Your task to perform on an android device: Show me productivity apps on the Play Store Image 0: 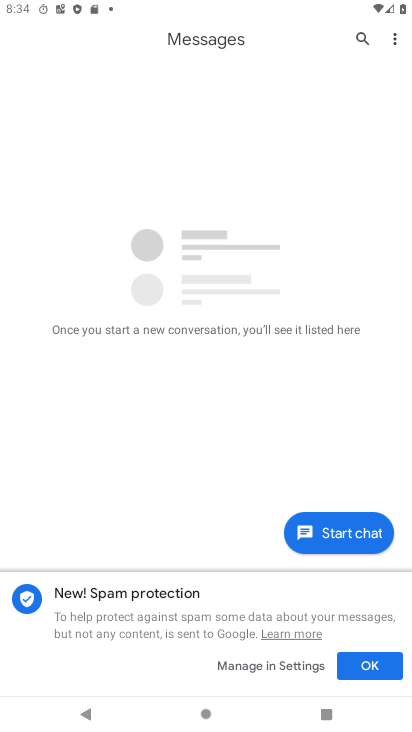
Step 0: press home button
Your task to perform on an android device: Show me productivity apps on the Play Store Image 1: 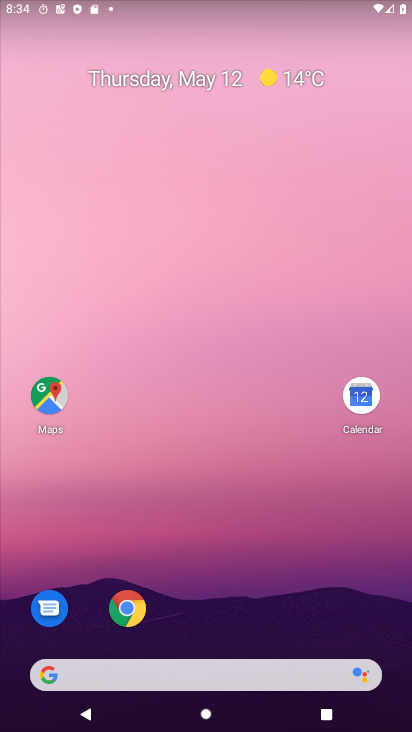
Step 1: drag from (264, 572) to (186, 252)
Your task to perform on an android device: Show me productivity apps on the Play Store Image 2: 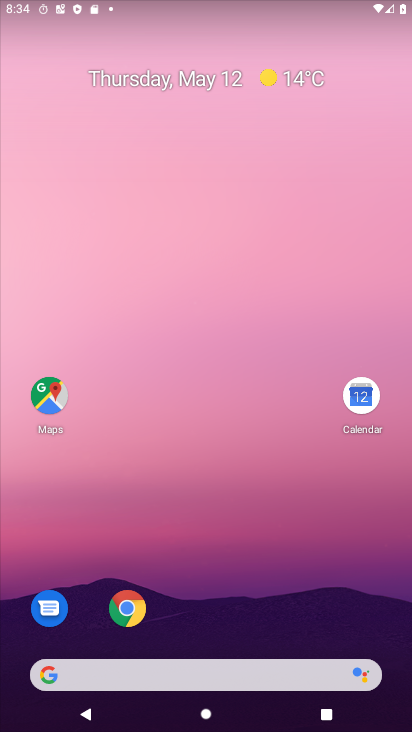
Step 2: drag from (261, 534) to (219, 55)
Your task to perform on an android device: Show me productivity apps on the Play Store Image 3: 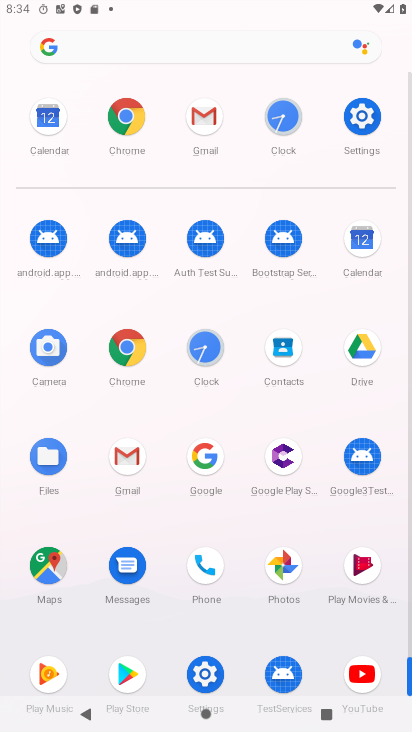
Step 3: click (132, 676)
Your task to perform on an android device: Show me productivity apps on the Play Store Image 4: 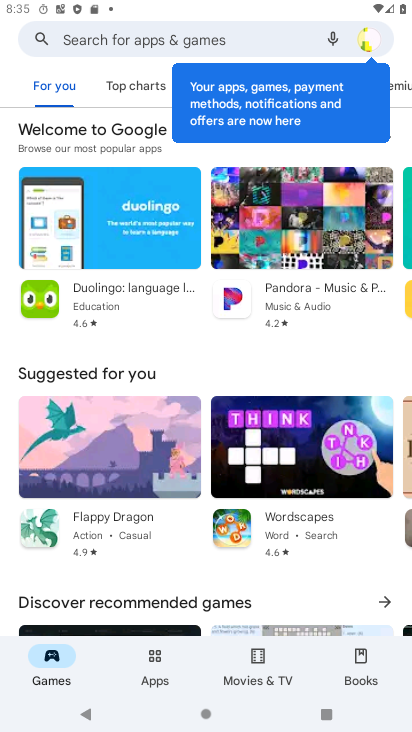
Step 4: type "productivity apps"
Your task to perform on an android device: Show me productivity apps on the Play Store Image 5: 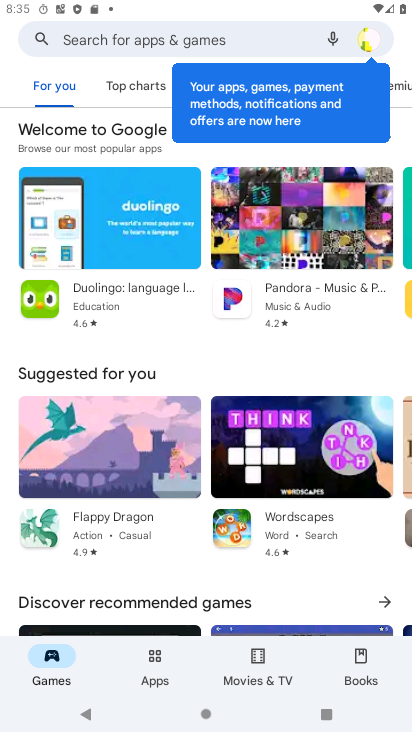
Step 5: click (157, 30)
Your task to perform on an android device: Show me productivity apps on the Play Store Image 6: 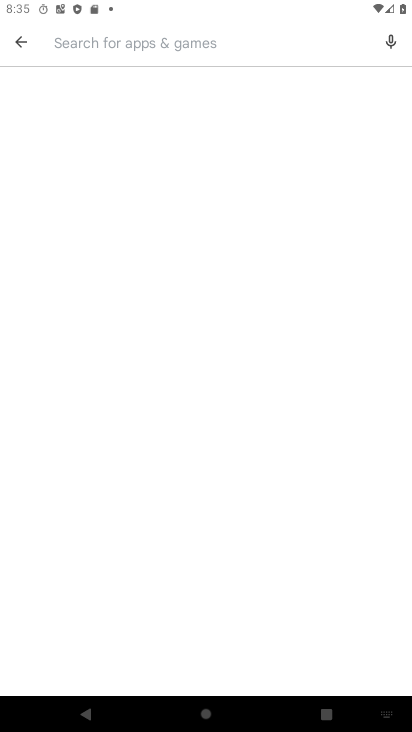
Step 6: type "productivity app"
Your task to perform on an android device: Show me productivity apps on the Play Store Image 7: 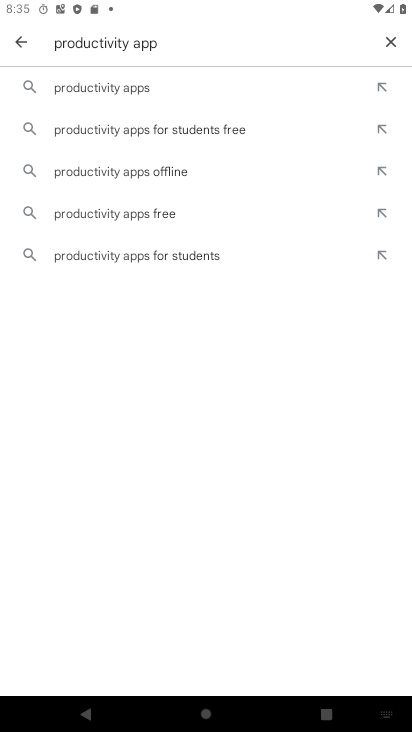
Step 7: click (133, 83)
Your task to perform on an android device: Show me productivity apps on the Play Store Image 8: 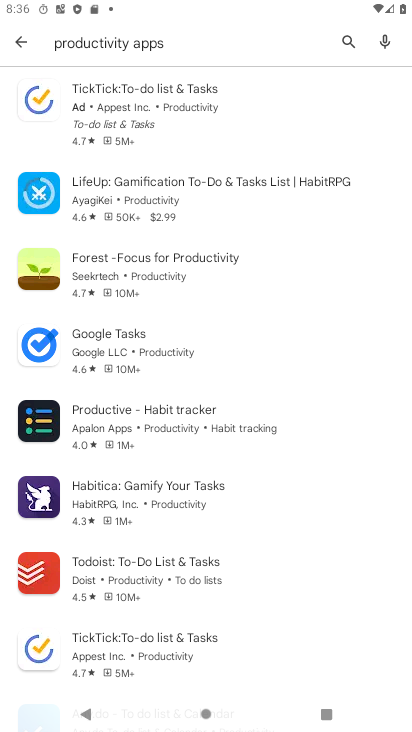
Step 8: task complete